Your task to perform on an android device: change the clock style Image 0: 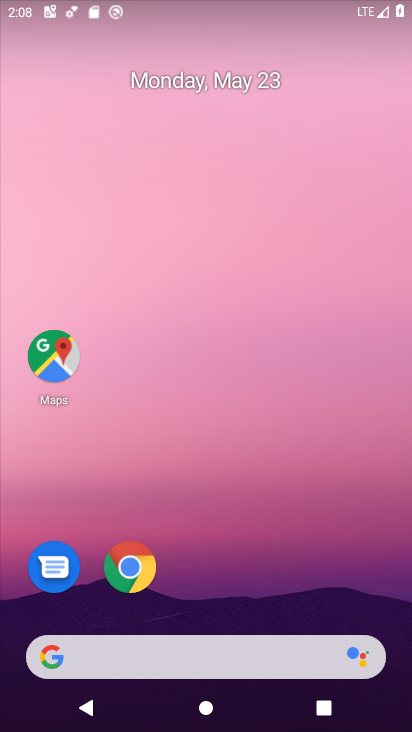
Step 0: drag from (272, 595) to (238, 240)
Your task to perform on an android device: change the clock style Image 1: 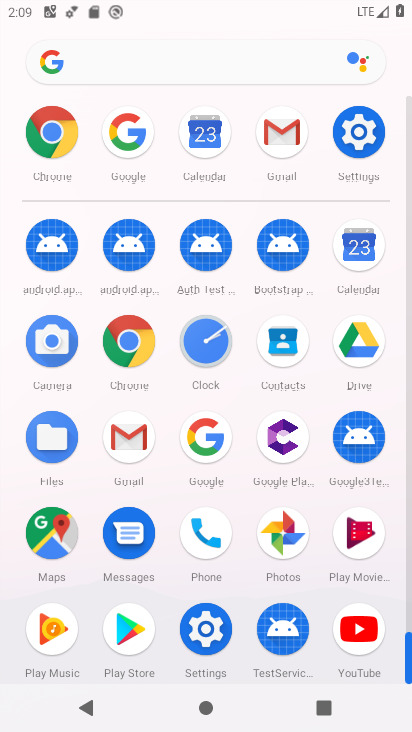
Step 1: click (216, 353)
Your task to perform on an android device: change the clock style Image 2: 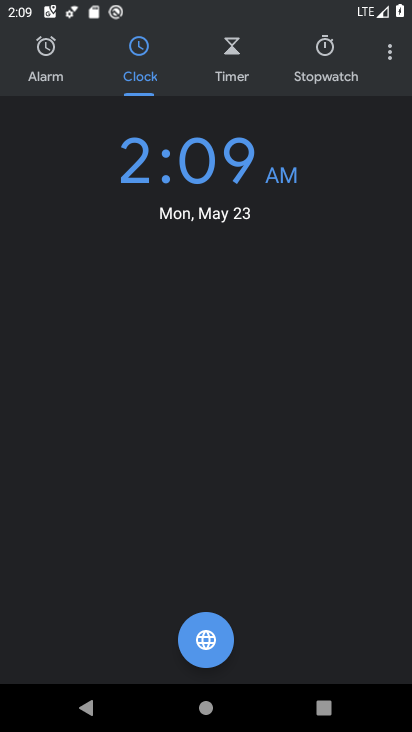
Step 2: click (384, 59)
Your task to perform on an android device: change the clock style Image 3: 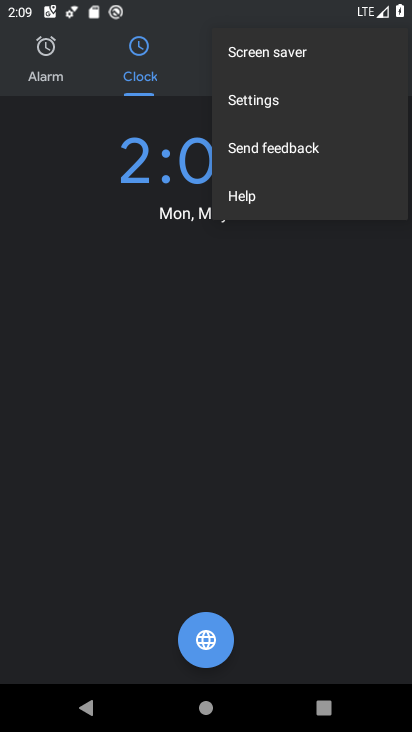
Step 3: click (284, 110)
Your task to perform on an android device: change the clock style Image 4: 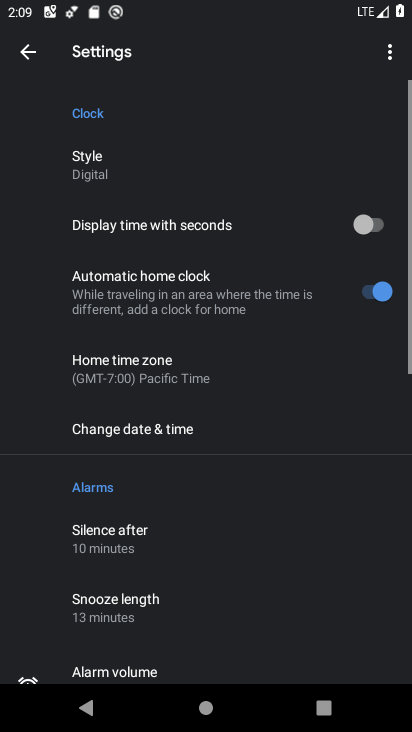
Step 4: click (147, 179)
Your task to perform on an android device: change the clock style Image 5: 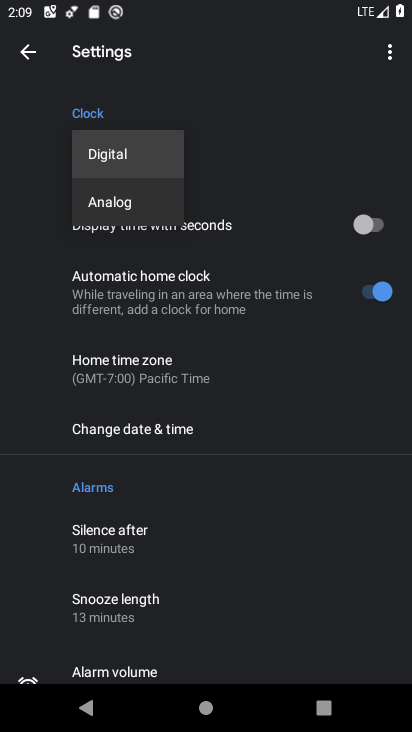
Step 5: click (142, 217)
Your task to perform on an android device: change the clock style Image 6: 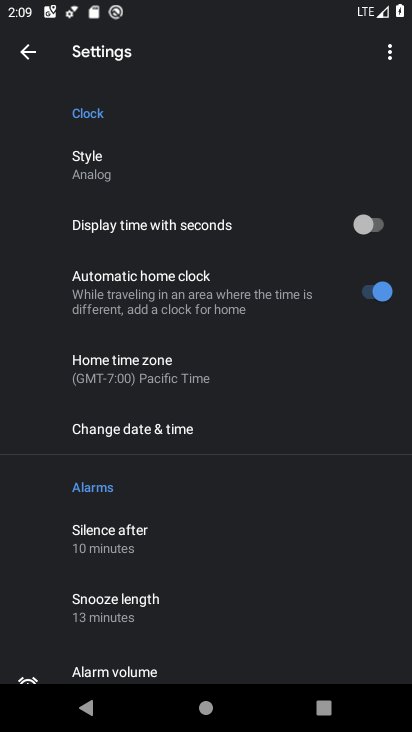
Step 6: task complete